Your task to perform on an android device: toggle javascript in the chrome app Image 0: 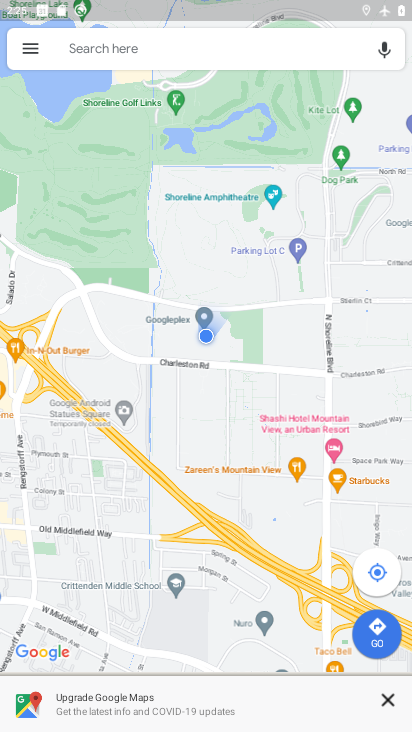
Step 0: press home button
Your task to perform on an android device: toggle javascript in the chrome app Image 1: 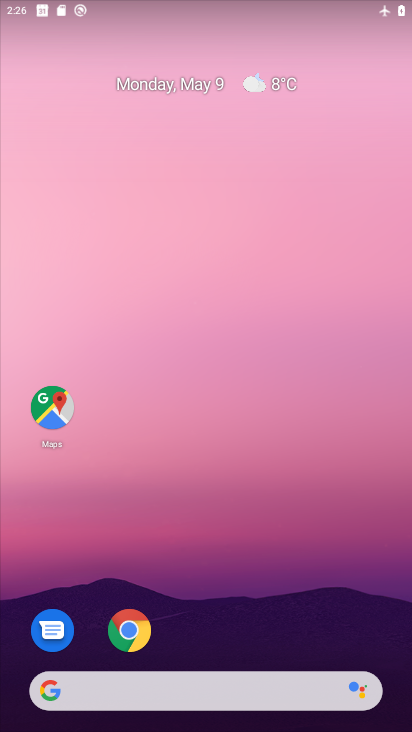
Step 1: click (133, 635)
Your task to perform on an android device: toggle javascript in the chrome app Image 2: 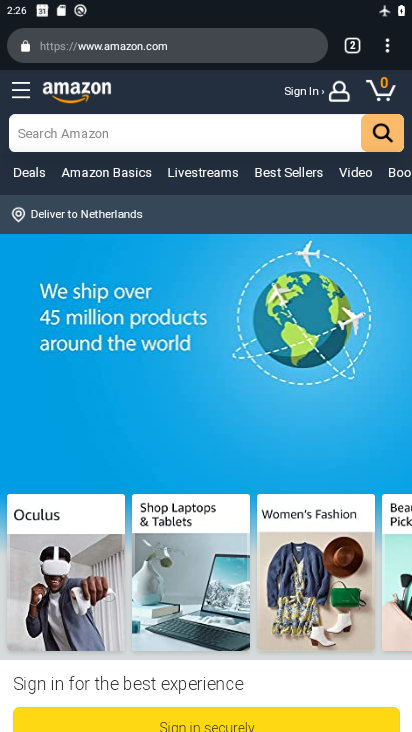
Step 2: click (386, 46)
Your task to perform on an android device: toggle javascript in the chrome app Image 3: 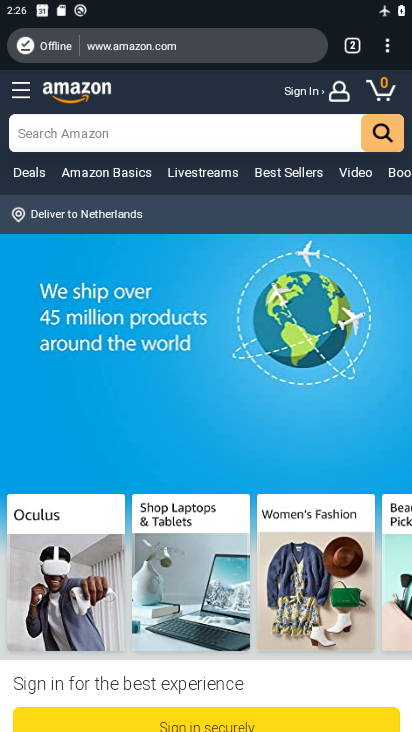
Step 3: click (387, 47)
Your task to perform on an android device: toggle javascript in the chrome app Image 4: 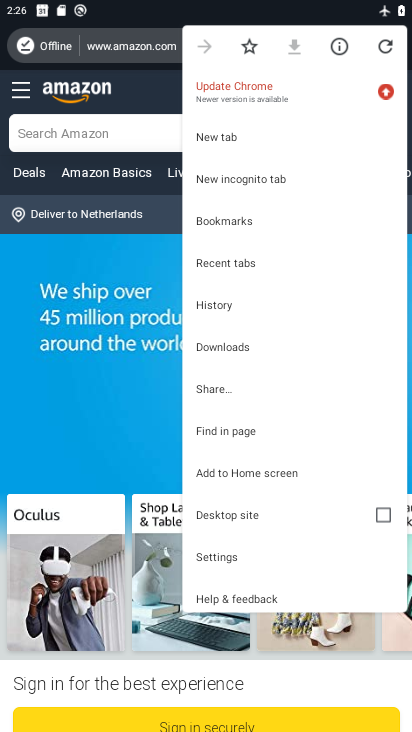
Step 4: click (219, 560)
Your task to perform on an android device: toggle javascript in the chrome app Image 5: 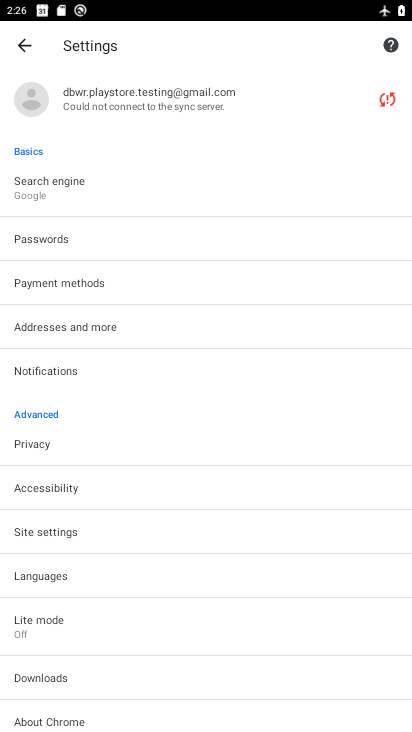
Step 5: drag from (101, 638) to (111, 501)
Your task to perform on an android device: toggle javascript in the chrome app Image 6: 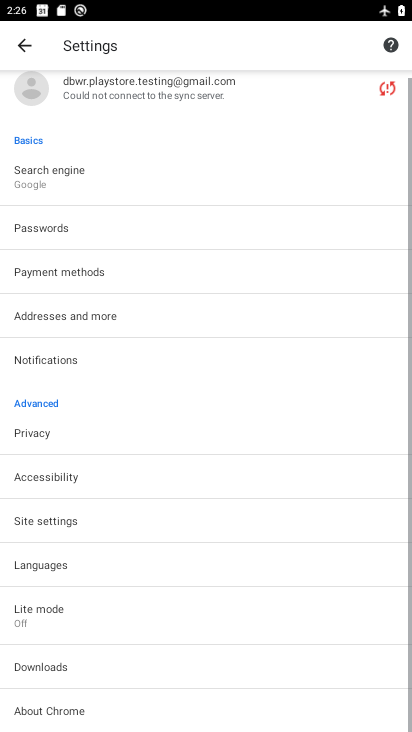
Step 6: click (39, 515)
Your task to perform on an android device: toggle javascript in the chrome app Image 7: 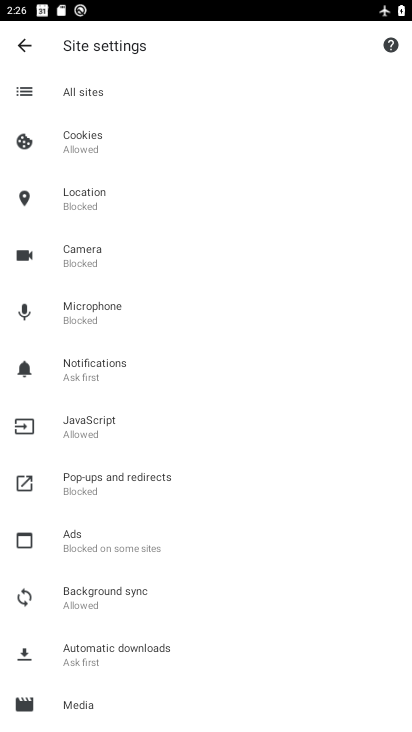
Step 7: click (111, 437)
Your task to perform on an android device: toggle javascript in the chrome app Image 8: 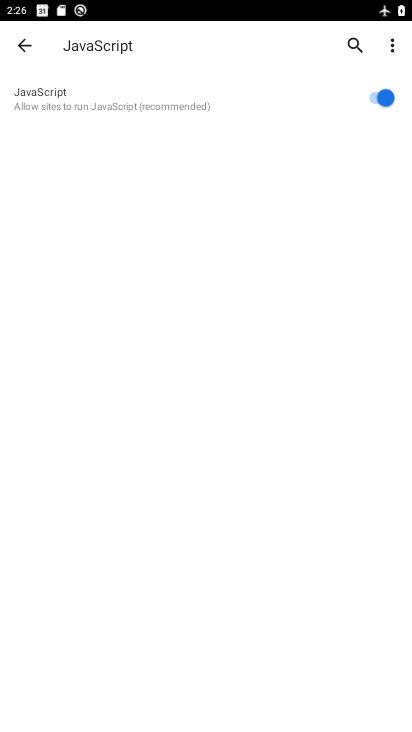
Step 8: click (370, 88)
Your task to perform on an android device: toggle javascript in the chrome app Image 9: 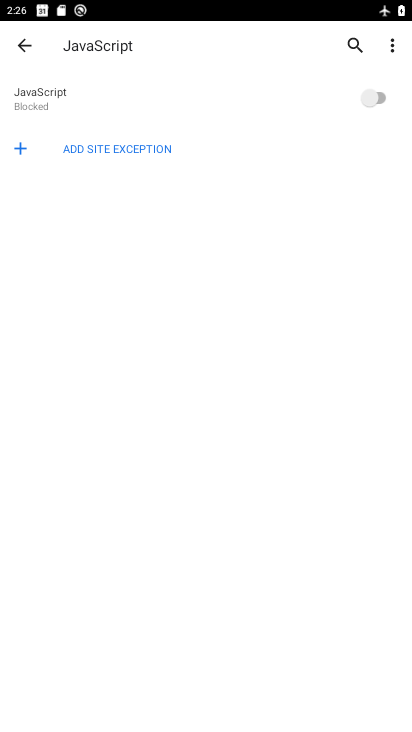
Step 9: task complete